Your task to perform on an android device: toggle javascript in the chrome app Image 0: 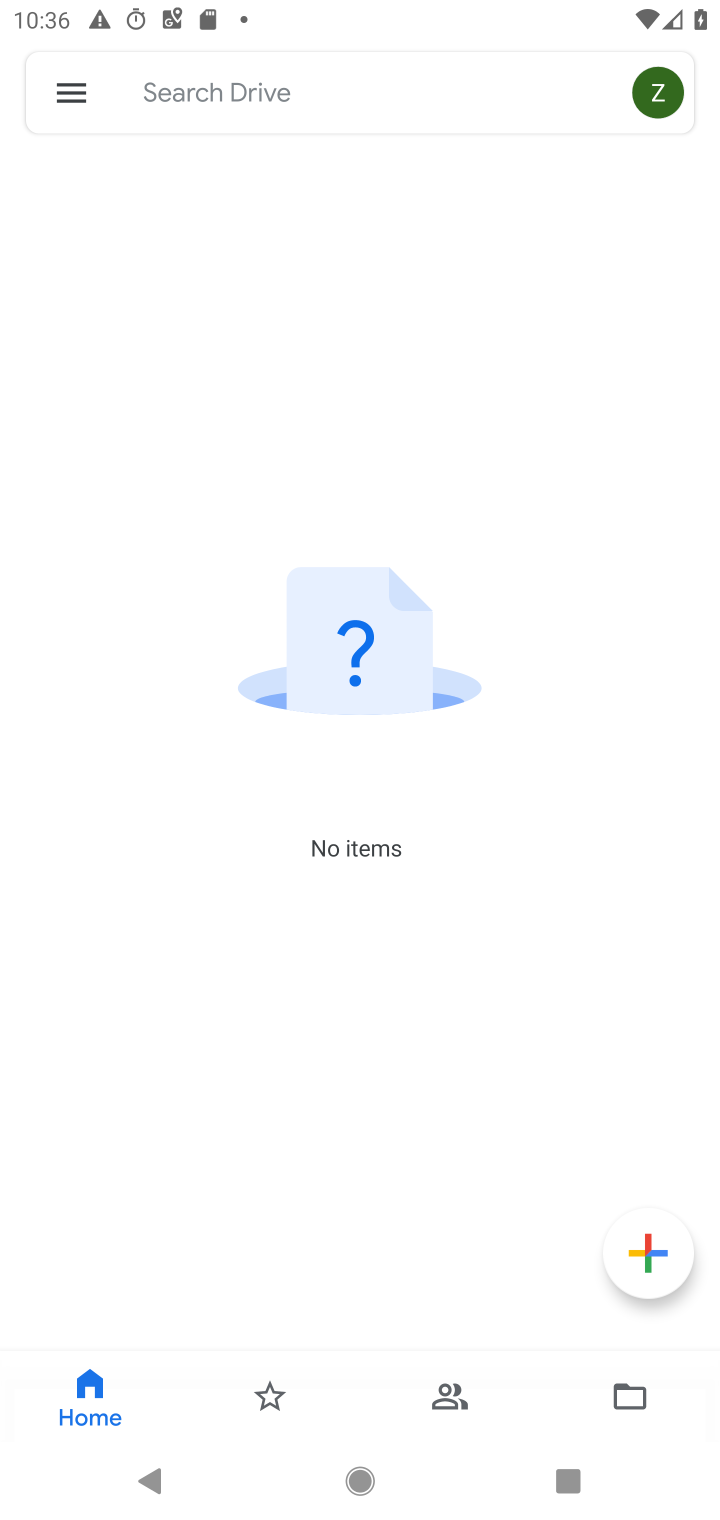
Step 0: press home button
Your task to perform on an android device: toggle javascript in the chrome app Image 1: 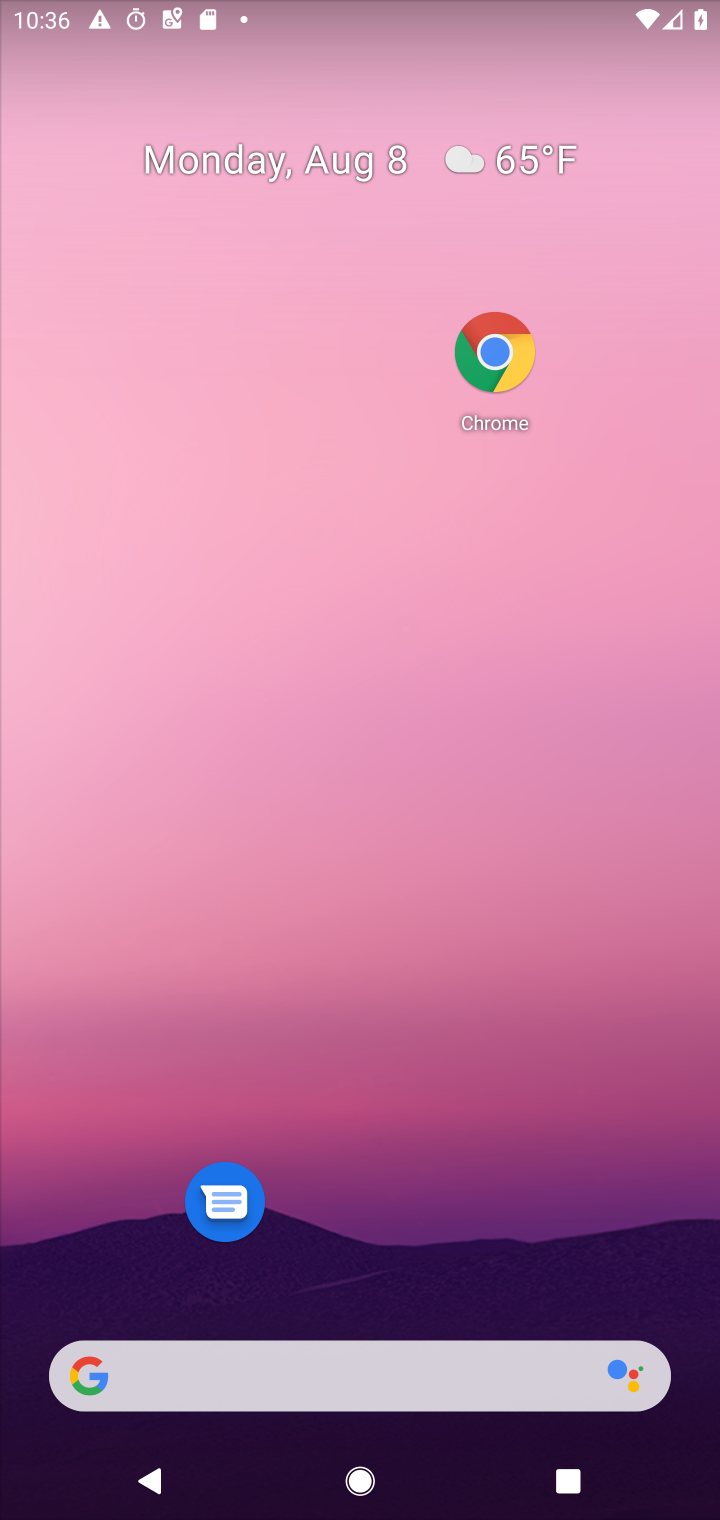
Step 1: drag from (425, 1118) to (619, 73)
Your task to perform on an android device: toggle javascript in the chrome app Image 2: 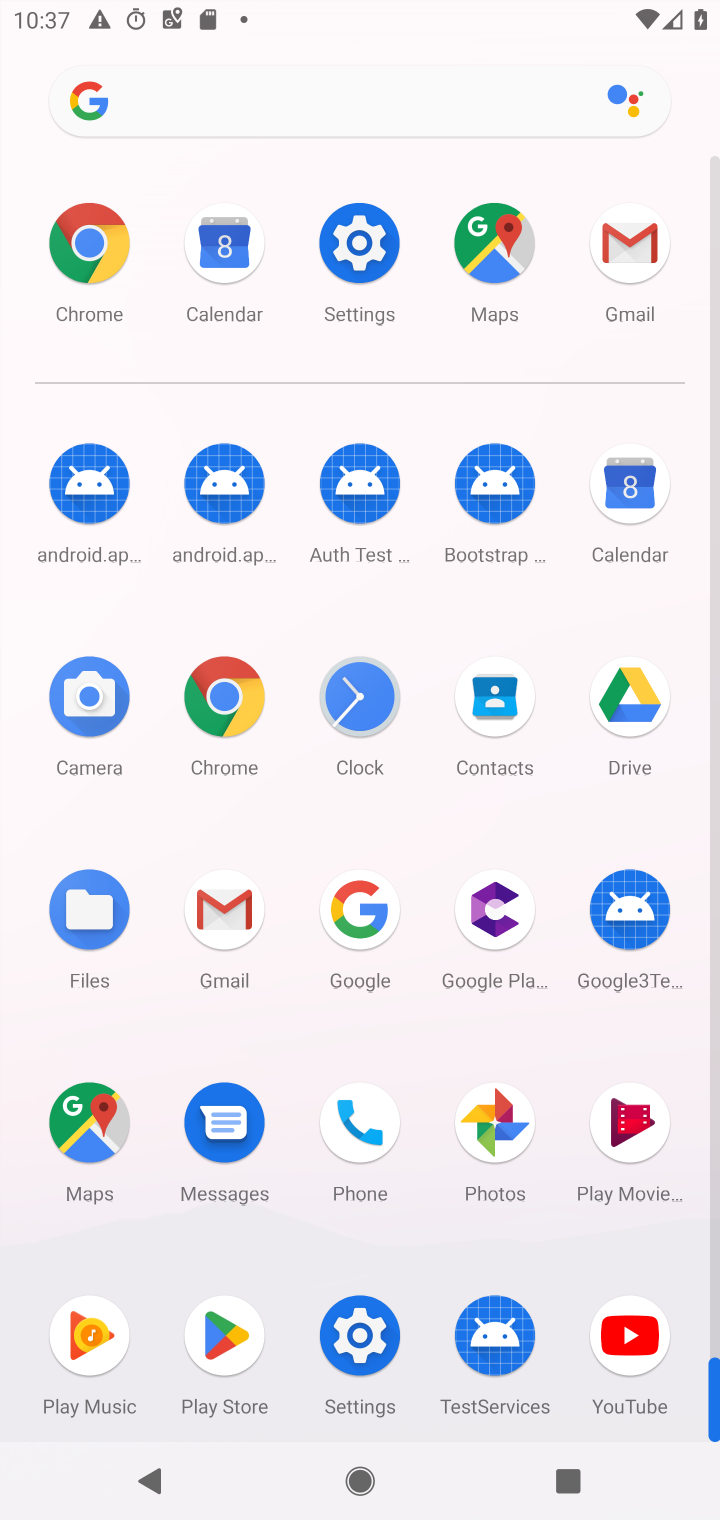
Step 2: click (85, 259)
Your task to perform on an android device: toggle javascript in the chrome app Image 3: 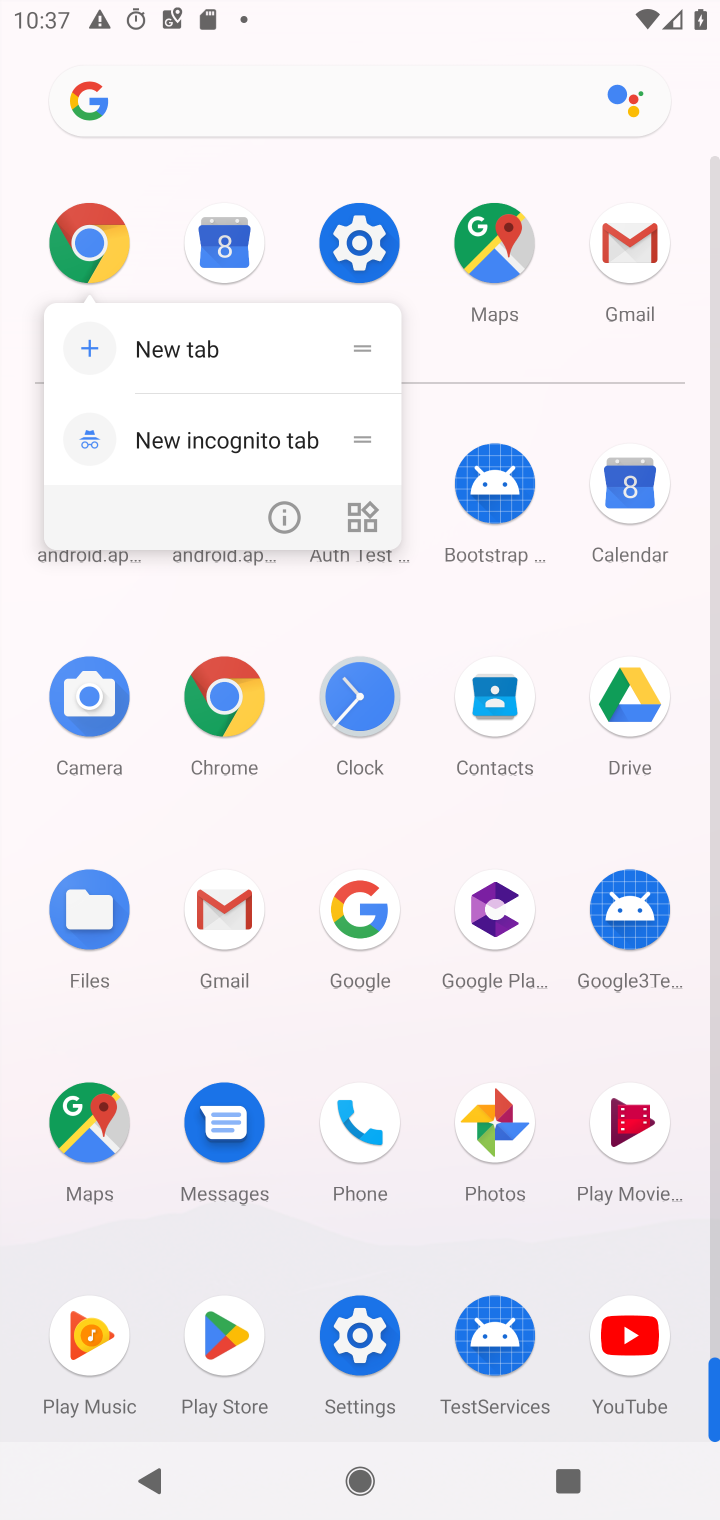
Step 3: click (91, 259)
Your task to perform on an android device: toggle javascript in the chrome app Image 4: 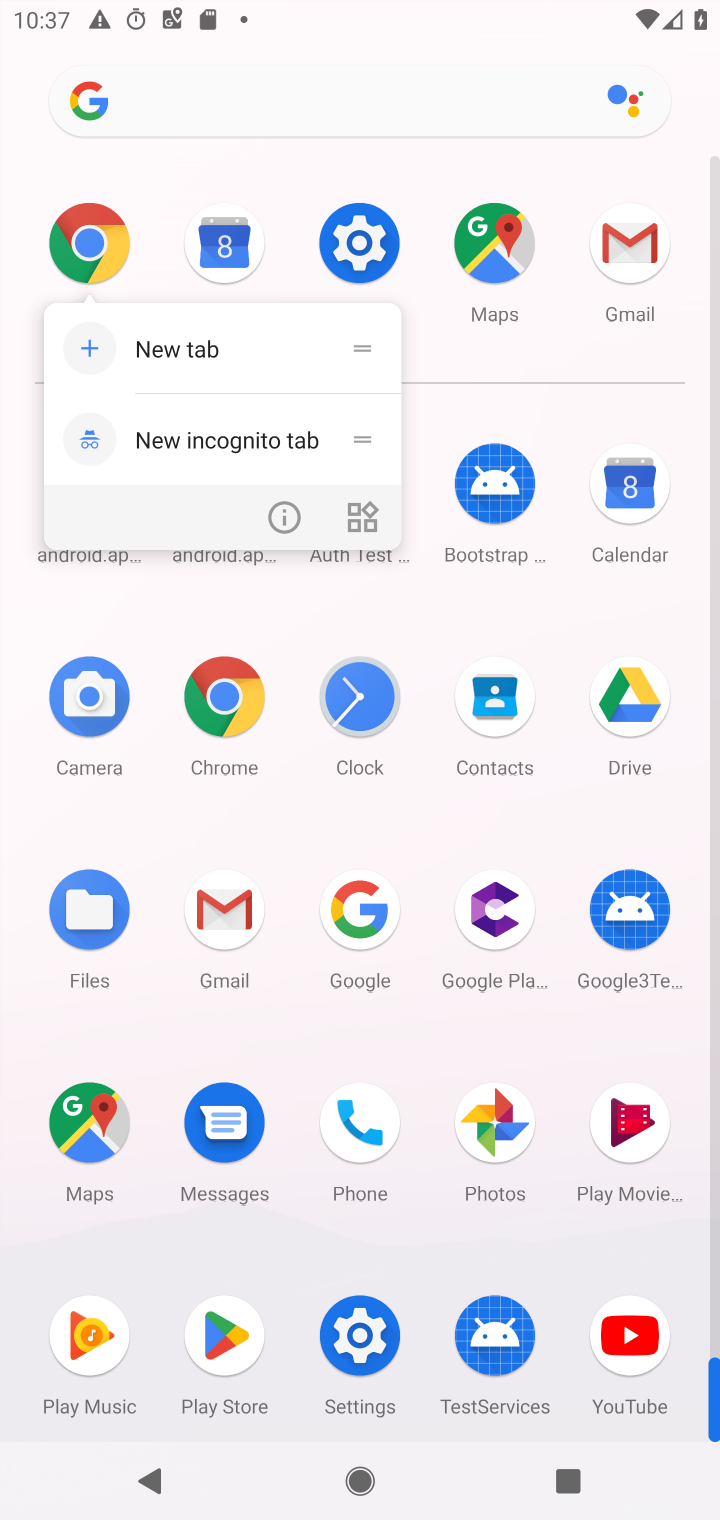
Step 4: click (116, 244)
Your task to perform on an android device: toggle javascript in the chrome app Image 5: 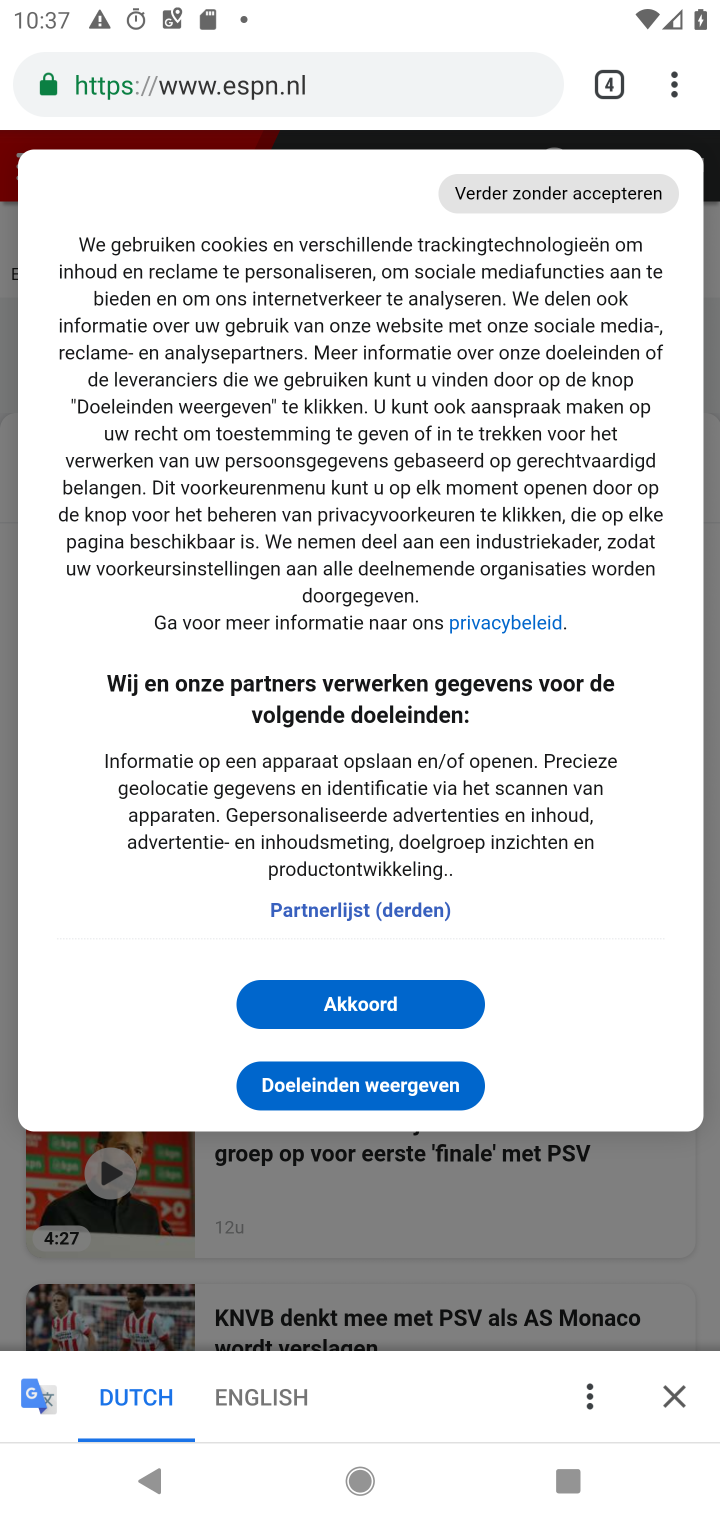
Step 5: click (659, 91)
Your task to perform on an android device: toggle javascript in the chrome app Image 6: 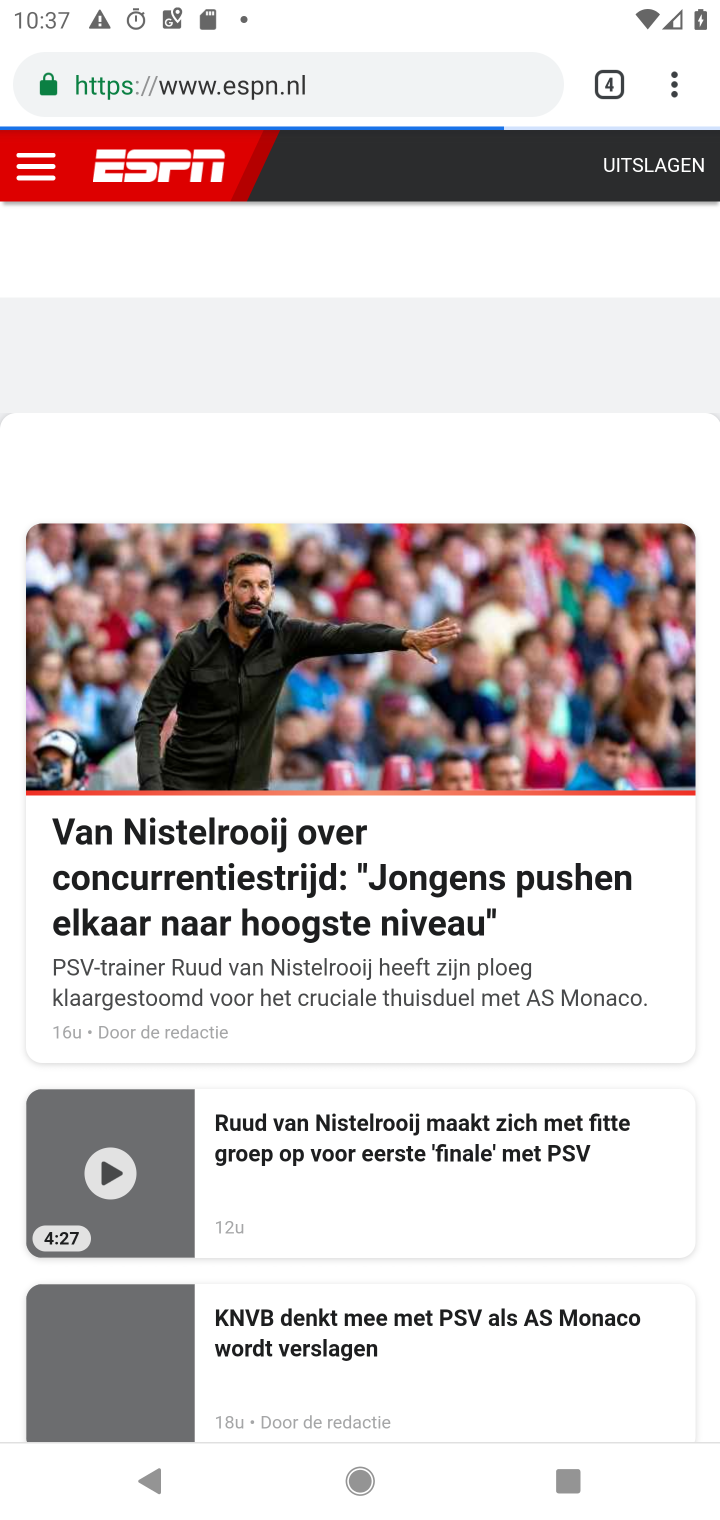
Step 6: click (689, 95)
Your task to perform on an android device: toggle javascript in the chrome app Image 7: 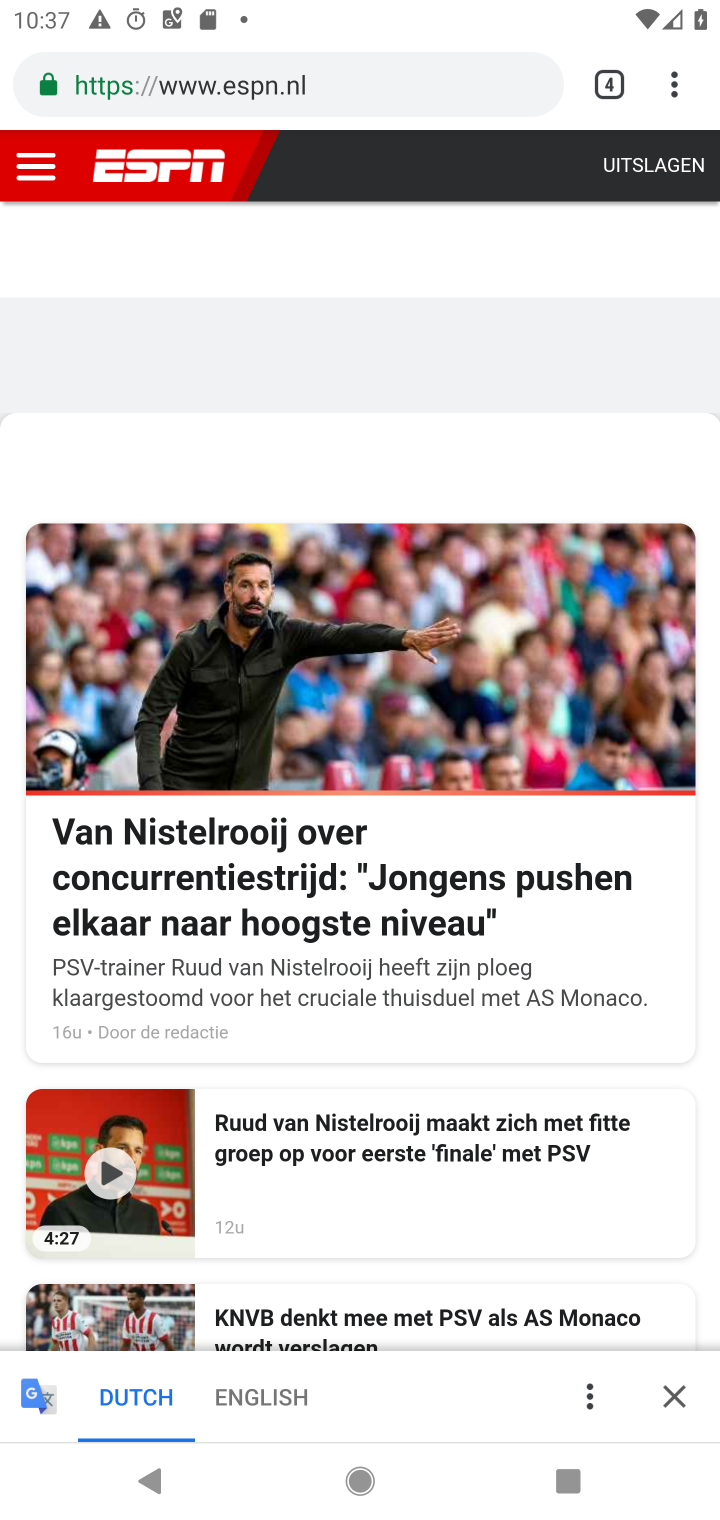
Step 7: click (689, 95)
Your task to perform on an android device: toggle javascript in the chrome app Image 8: 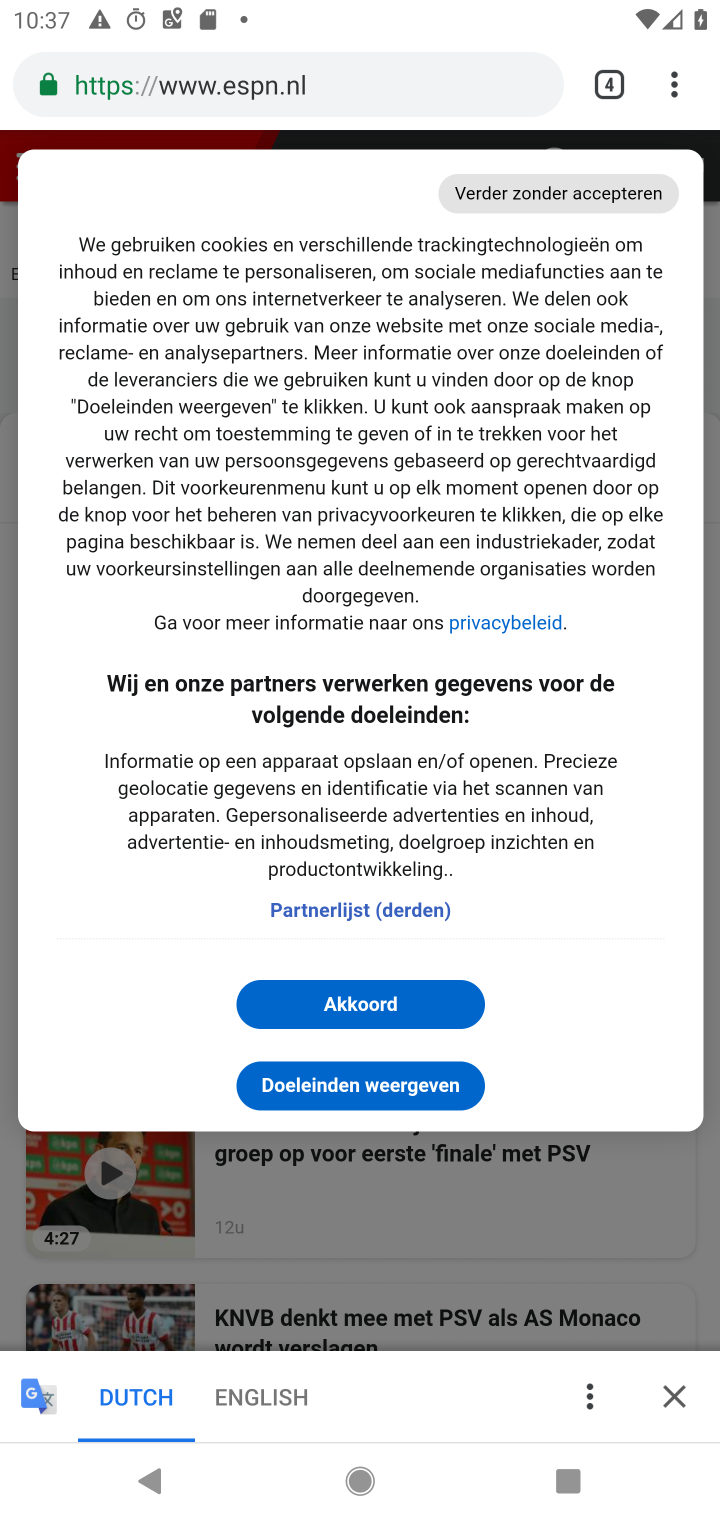
Step 8: click (660, 86)
Your task to perform on an android device: toggle javascript in the chrome app Image 9: 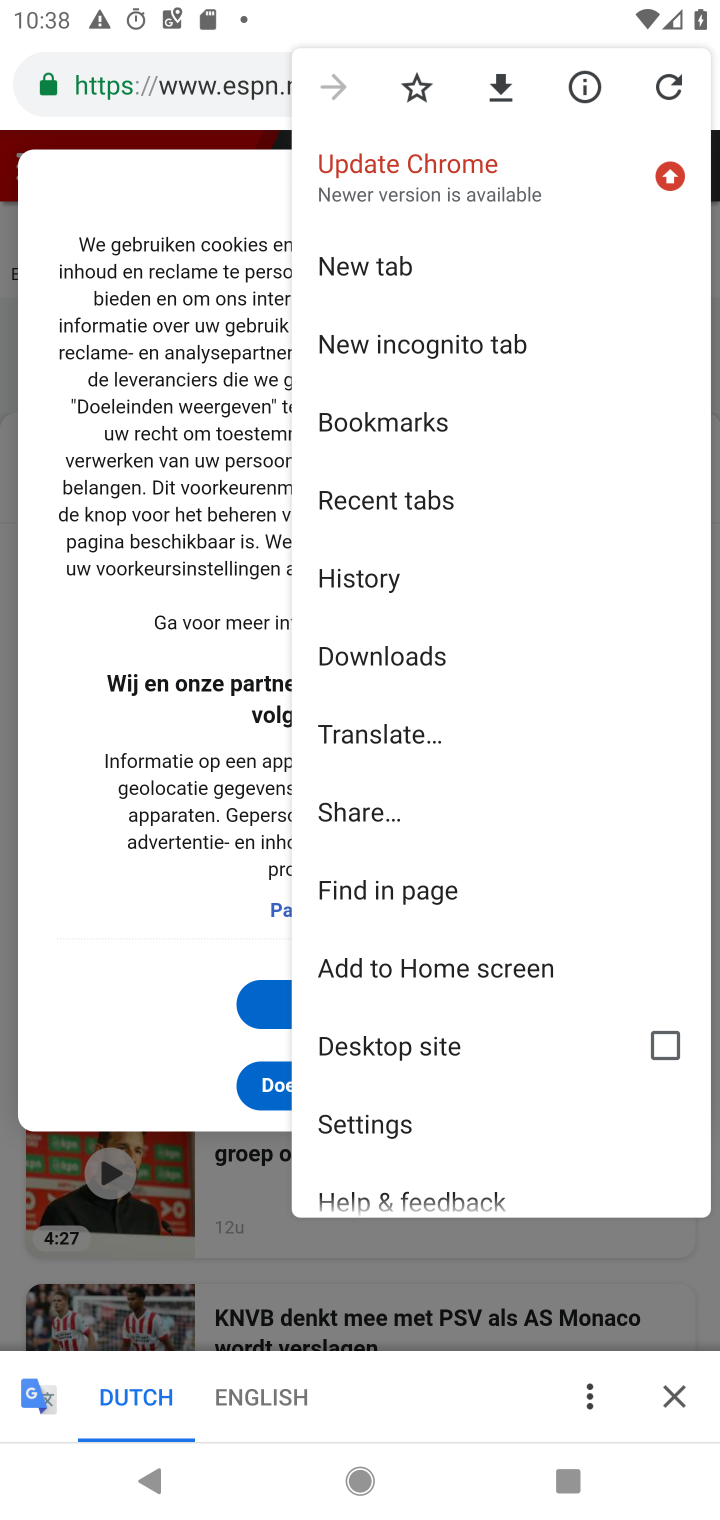
Step 9: click (339, 1122)
Your task to perform on an android device: toggle javascript in the chrome app Image 10: 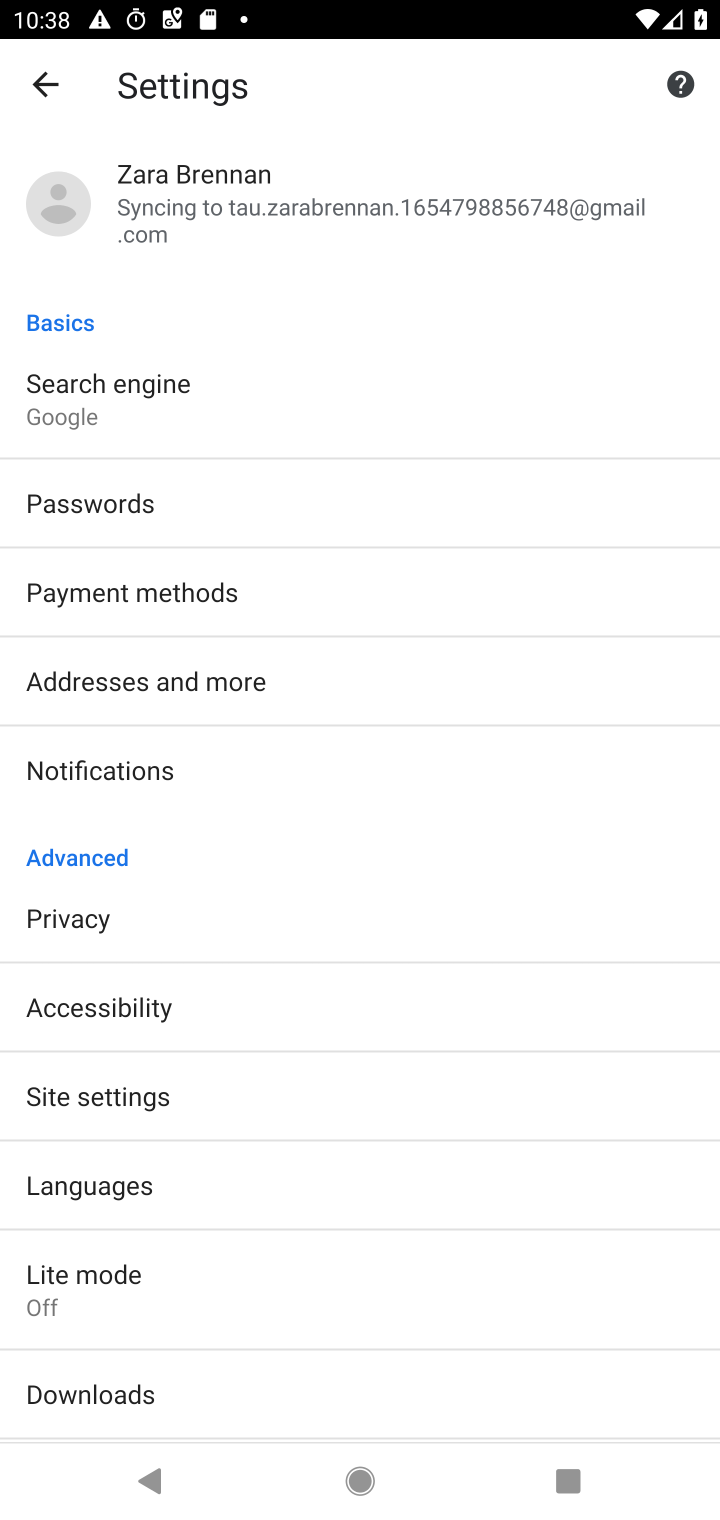
Step 10: click (161, 1104)
Your task to perform on an android device: toggle javascript in the chrome app Image 11: 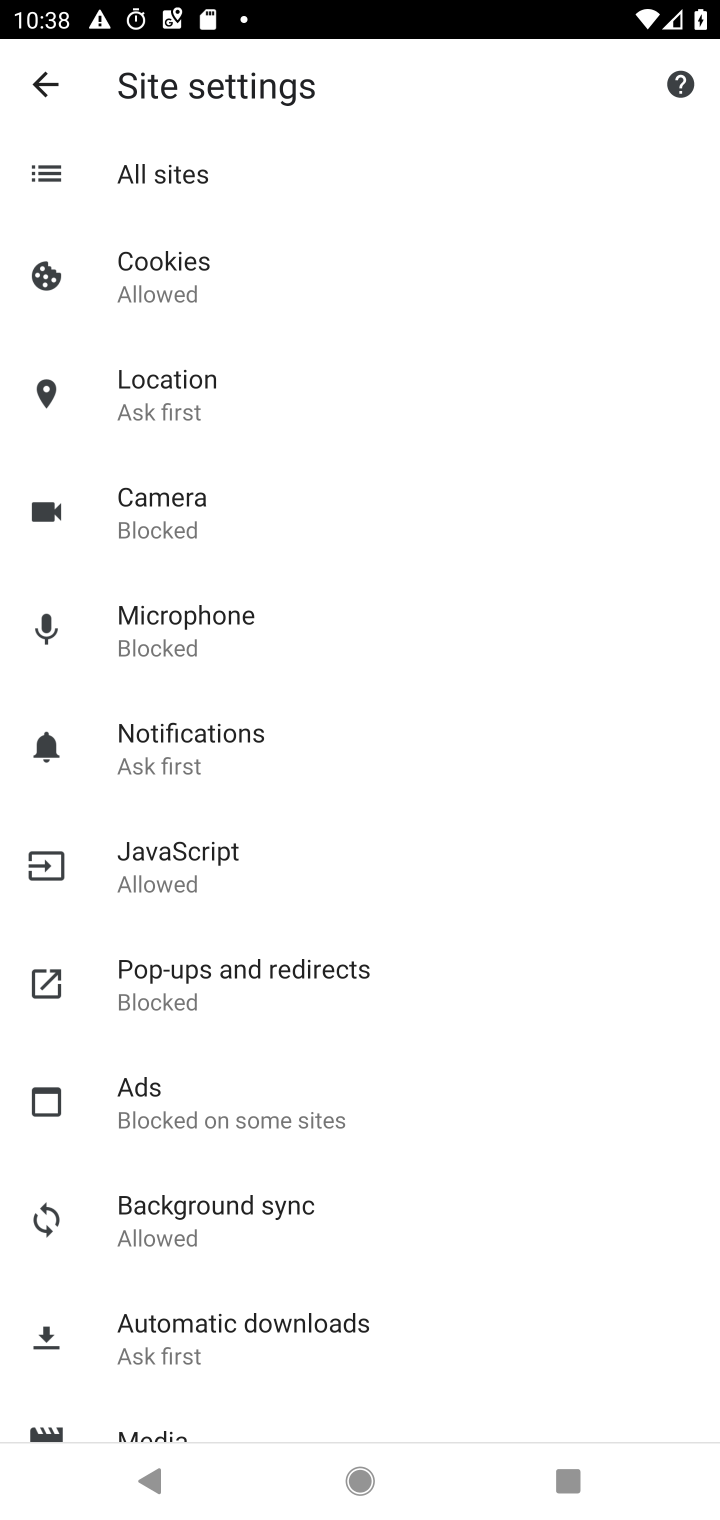
Step 11: click (171, 888)
Your task to perform on an android device: toggle javascript in the chrome app Image 12: 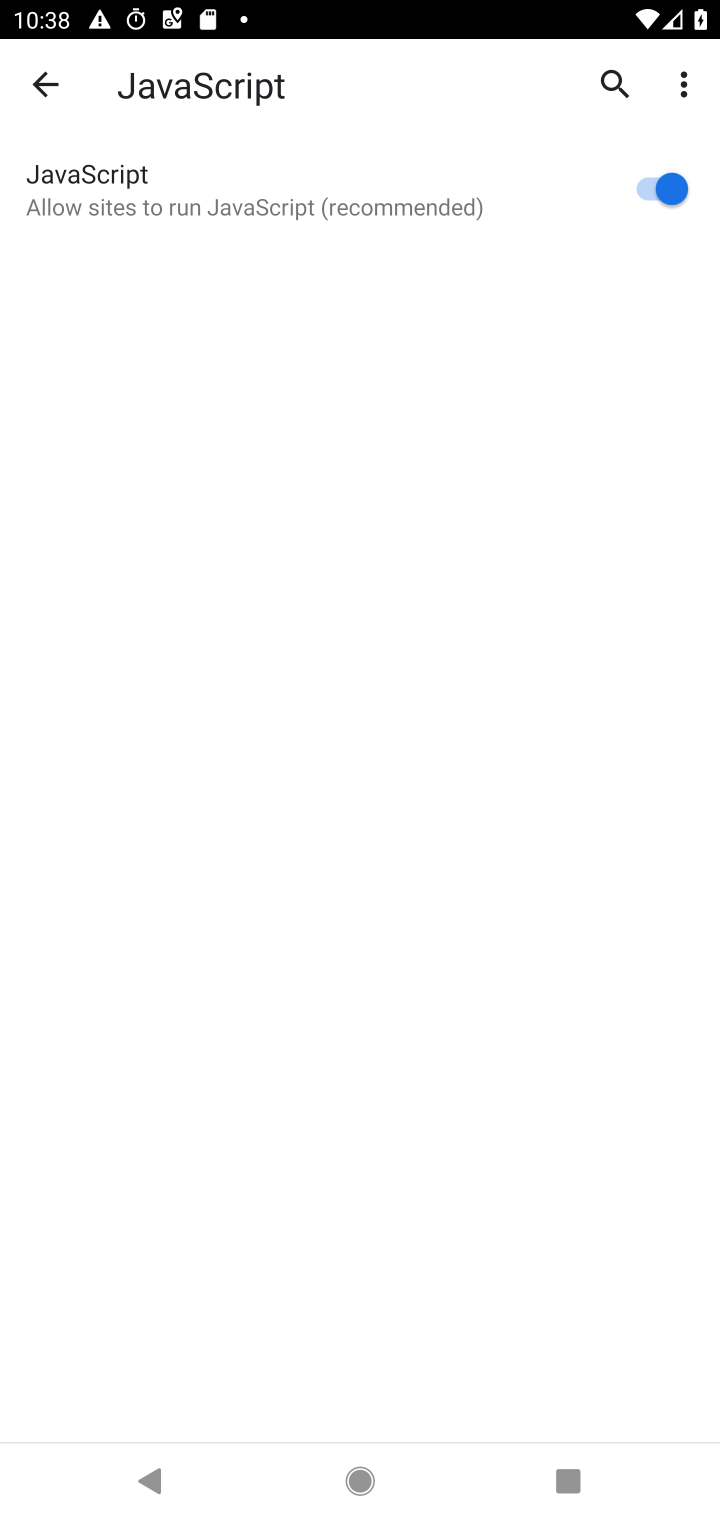
Step 12: click (651, 186)
Your task to perform on an android device: toggle javascript in the chrome app Image 13: 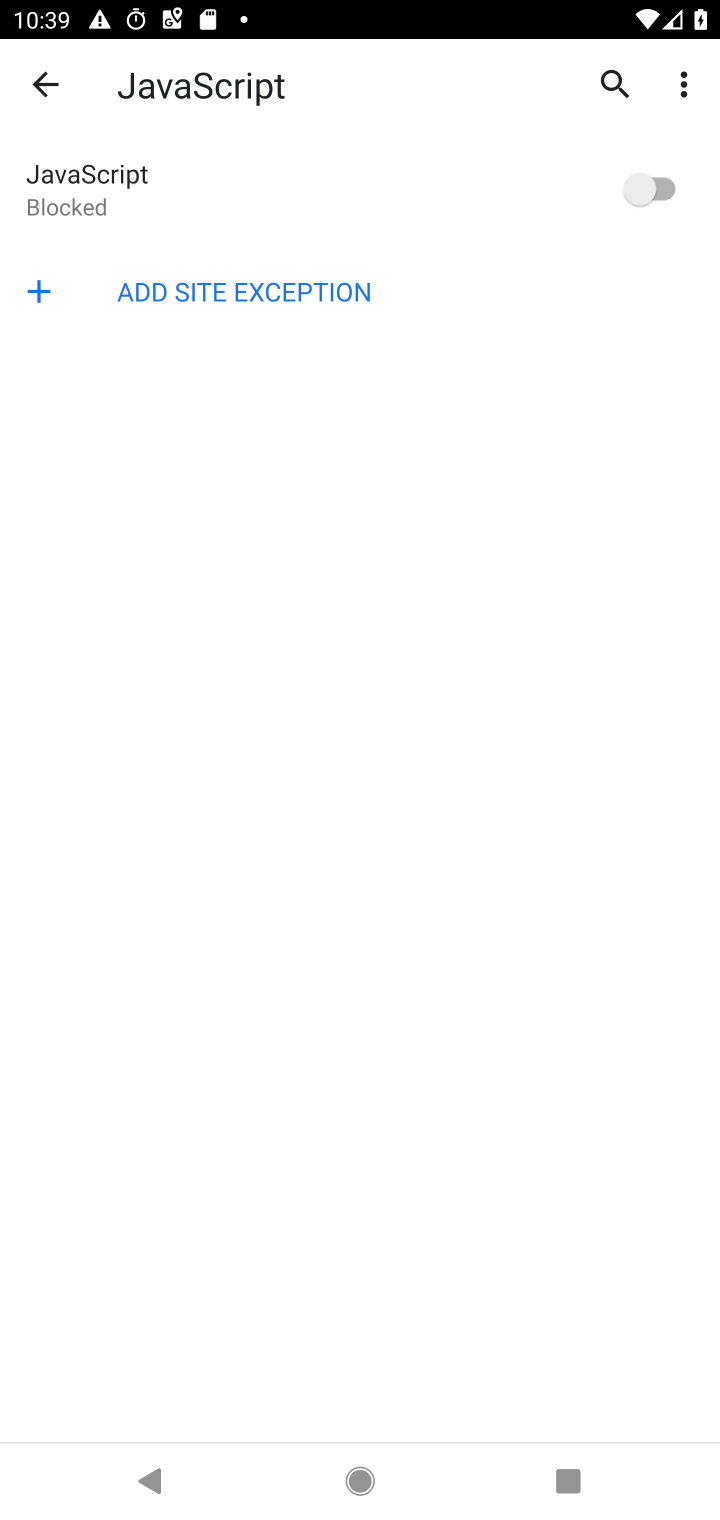
Step 13: task complete